Your task to perform on an android device: Go to Google Image 0: 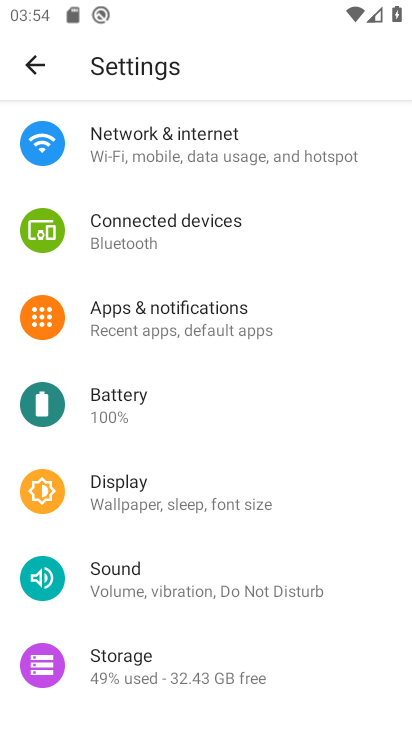
Step 0: press home button
Your task to perform on an android device: Go to Google Image 1: 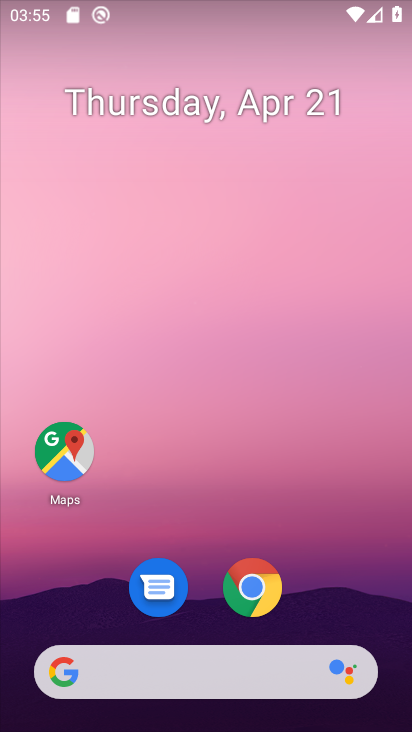
Step 1: drag from (342, 591) to (332, 178)
Your task to perform on an android device: Go to Google Image 2: 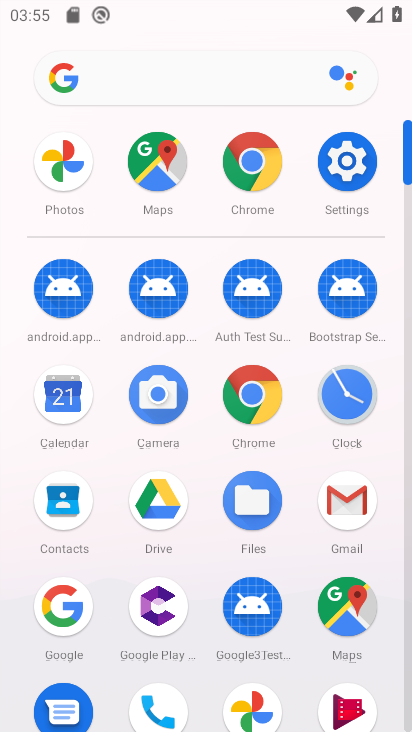
Step 2: drag from (202, 566) to (199, 351)
Your task to perform on an android device: Go to Google Image 3: 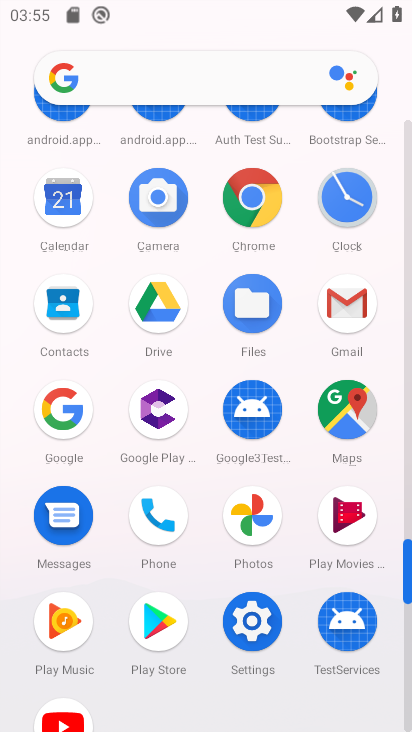
Step 3: drag from (198, 559) to (198, 402)
Your task to perform on an android device: Go to Google Image 4: 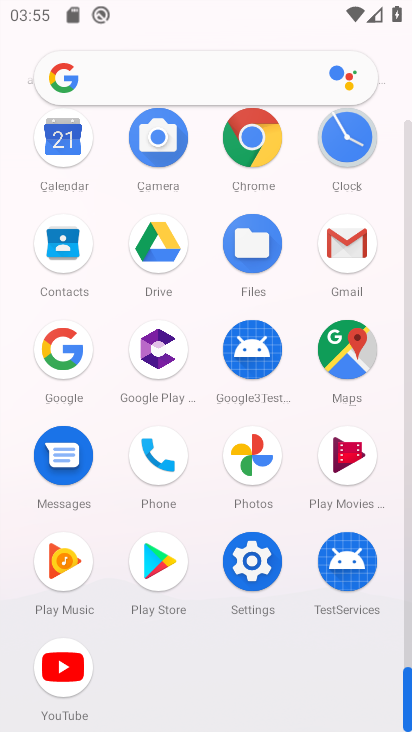
Step 4: click (65, 355)
Your task to perform on an android device: Go to Google Image 5: 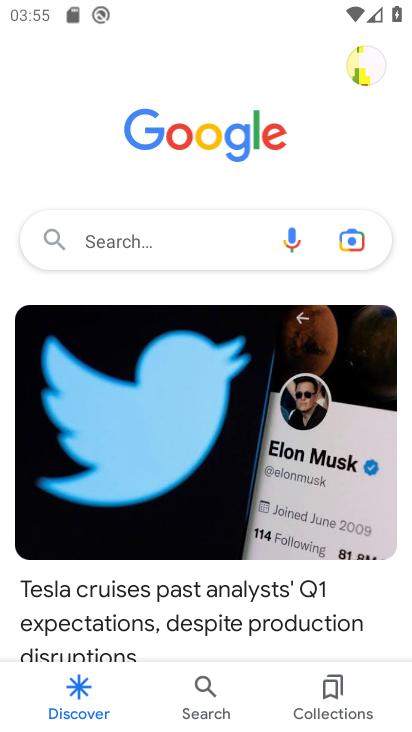
Step 5: task complete